Your task to perform on an android device: Do I have any events today? Image 0: 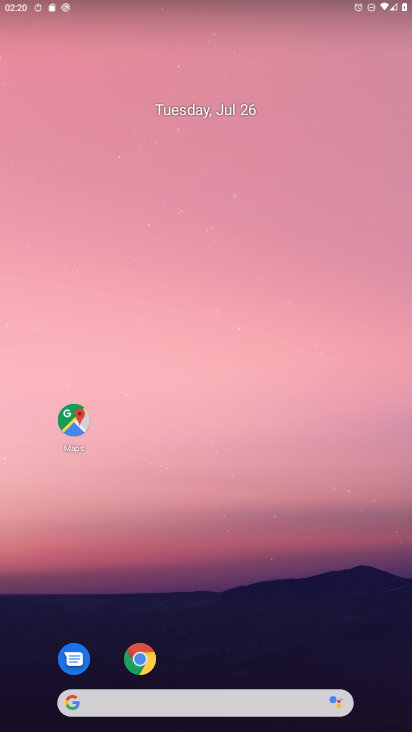
Step 0: press home button
Your task to perform on an android device: Do I have any events today? Image 1: 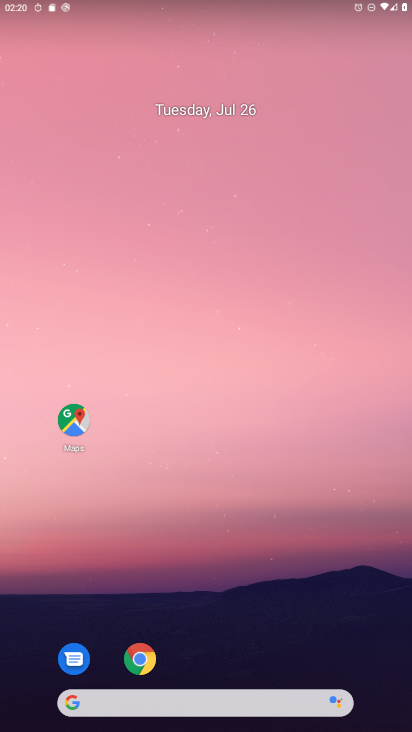
Step 1: drag from (330, 644) to (331, 0)
Your task to perform on an android device: Do I have any events today? Image 2: 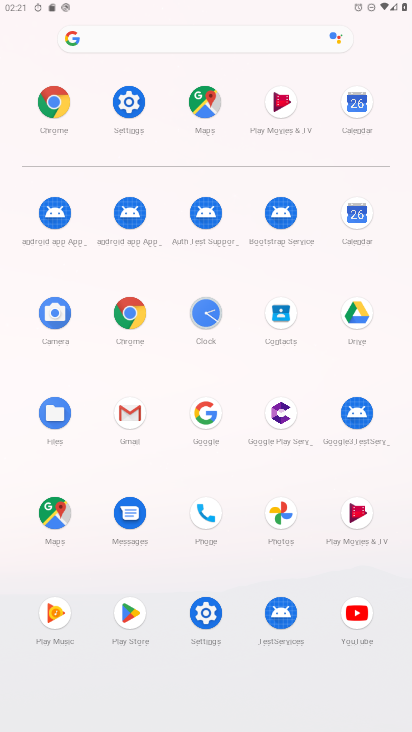
Step 2: click (357, 218)
Your task to perform on an android device: Do I have any events today? Image 3: 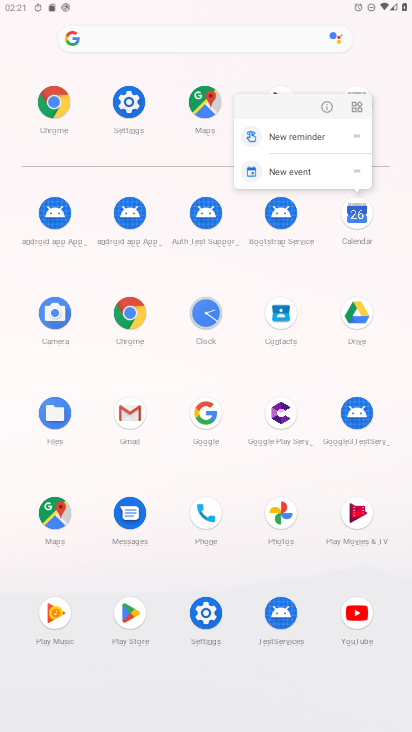
Step 3: click (357, 218)
Your task to perform on an android device: Do I have any events today? Image 4: 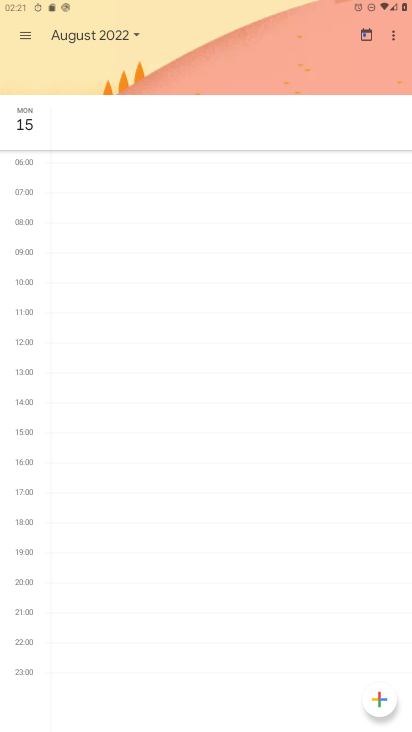
Step 4: click (135, 31)
Your task to perform on an android device: Do I have any events today? Image 5: 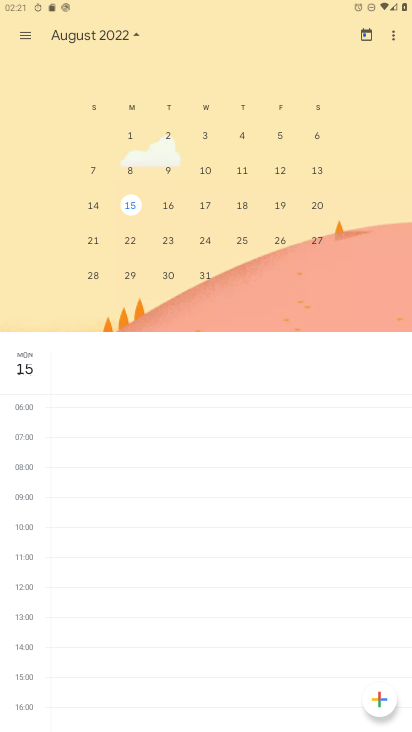
Step 5: drag from (49, 201) to (404, 183)
Your task to perform on an android device: Do I have any events today? Image 6: 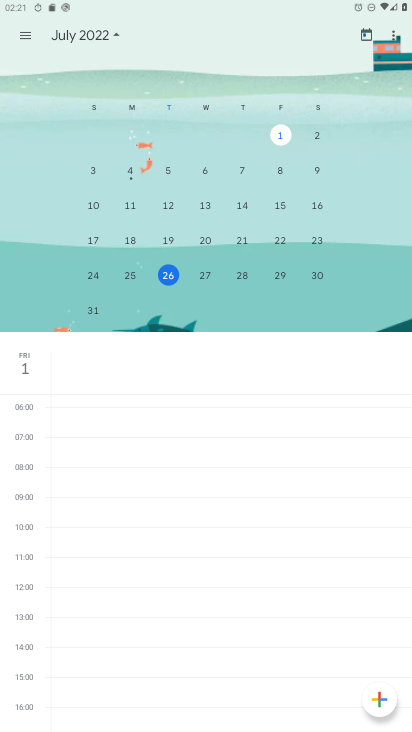
Step 6: click (170, 274)
Your task to perform on an android device: Do I have any events today? Image 7: 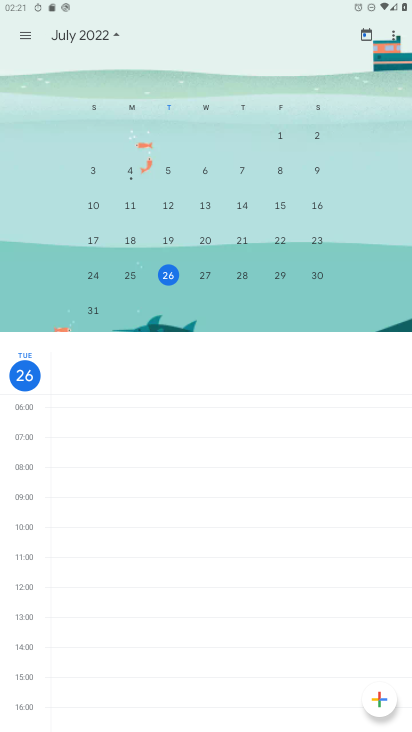
Step 7: task complete